Your task to perform on an android device: Open calendar and show me the first week of next month Image 0: 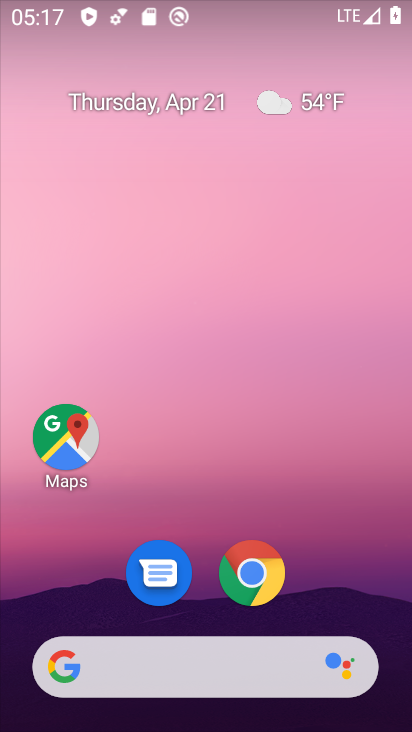
Step 0: drag from (362, 608) to (287, 161)
Your task to perform on an android device: Open calendar and show me the first week of next month Image 1: 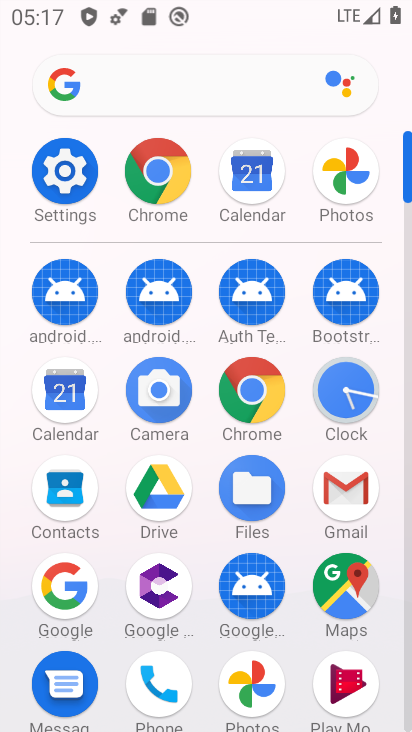
Step 1: click (408, 704)
Your task to perform on an android device: Open calendar and show me the first week of next month Image 2: 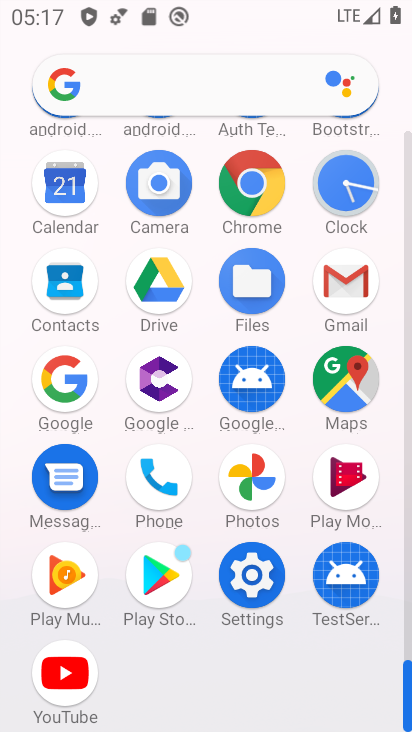
Step 2: click (58, 182)
Your task to perform on an android device: Open calendar and show me the first week of next month Image 3: 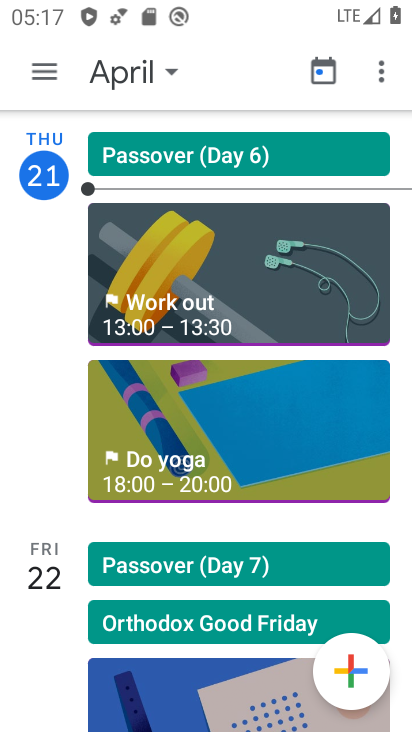
Step 3: click (38, 66)
Your task to perform on an android device: Open calendar and show me the first week of next month Image 4: 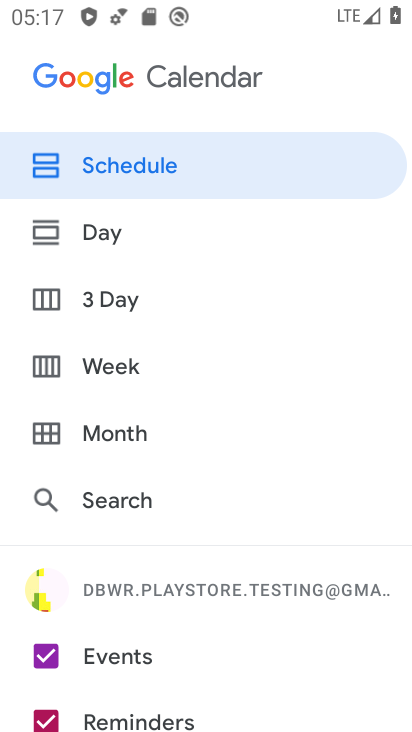
Step 4: click (110, 360)
Your task to perform on an android device: Open calendar and show me the first week of next month Image 5: 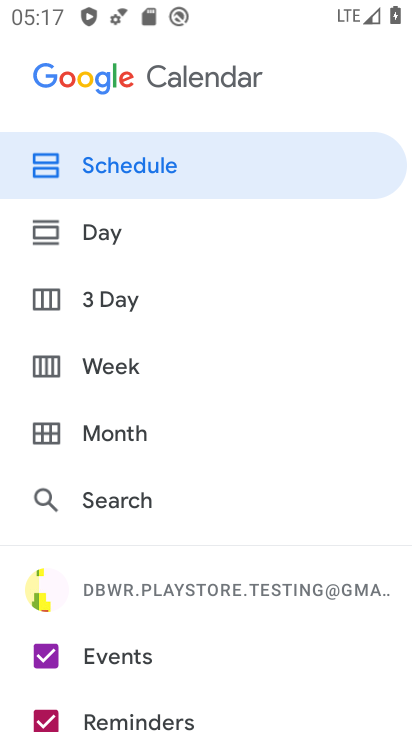
Step 5: click (107, 368)
Your task to perform on an android device: Open calendar and show me the first week of next month Image 6: 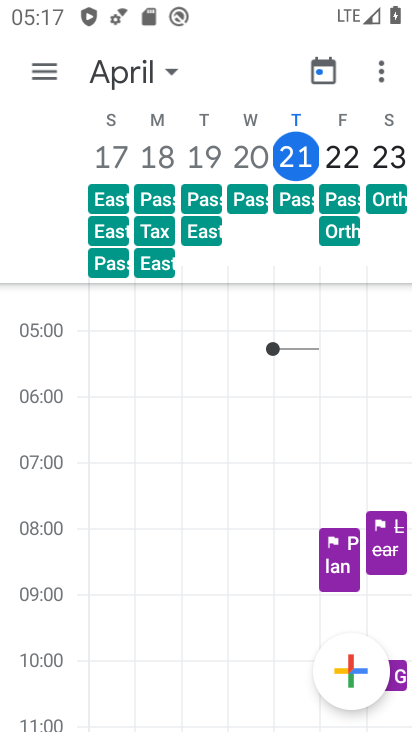
Step 6: click (170, 70)
Your task to perform on an android device: Open calendar and show me the first week of next month Image 7: 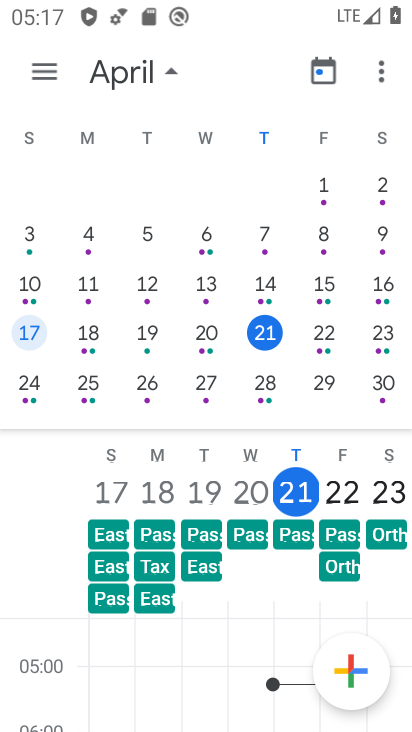
Step 7: task complete